Your task to perform on an android device: turn on translation in the chrome app Image 0: 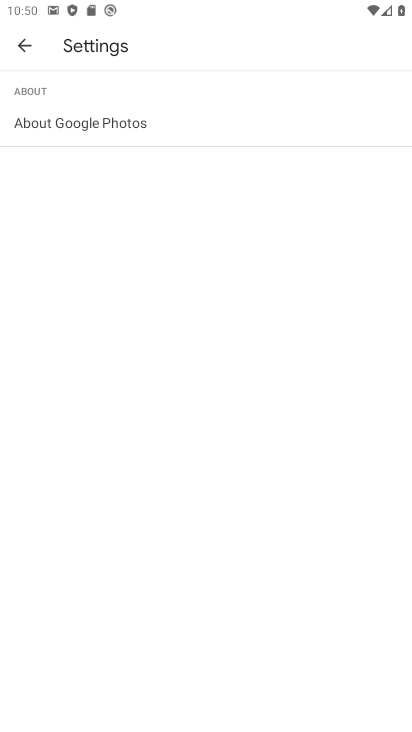
Step 0: press home button
Your task to perform on an android device: turn on translation in the chrome app Image 1: 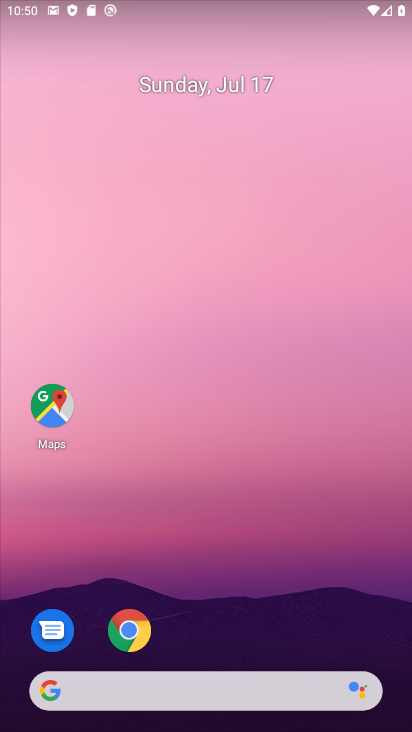
Step 1: click (142, 649)
Your task to perform on an android device: turn on translation in the chrome app Image 2: 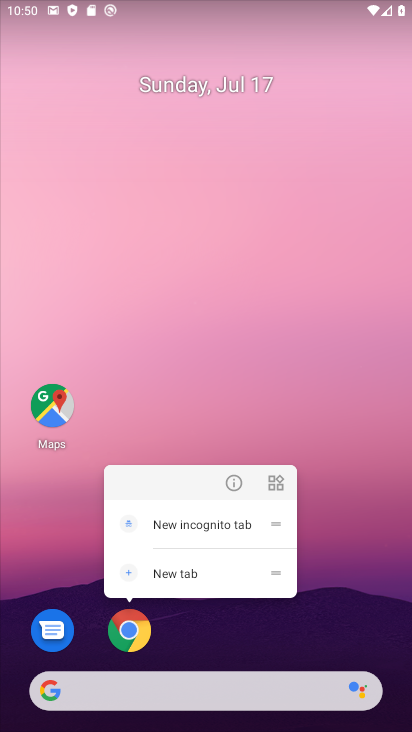
Step 2: click (141, 646)
Your task to perform on an android device: turn on translation in the chrome app Image 3: 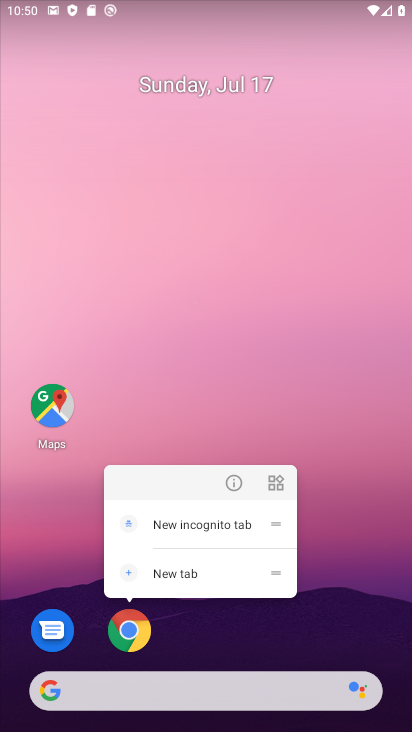
Step 3: click (135, 636)
Your task to perform on an android device: turn on translation in the chrome app Image 4: 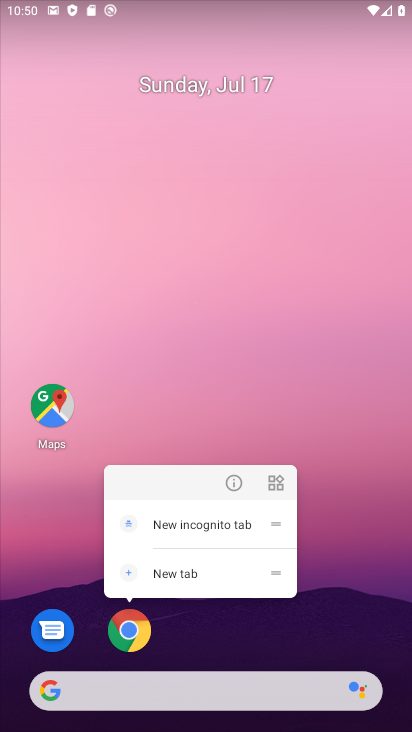
Step 4: click (135, 632)
Your task to perform on an android device: turn on translation in the chrome app Image 5: 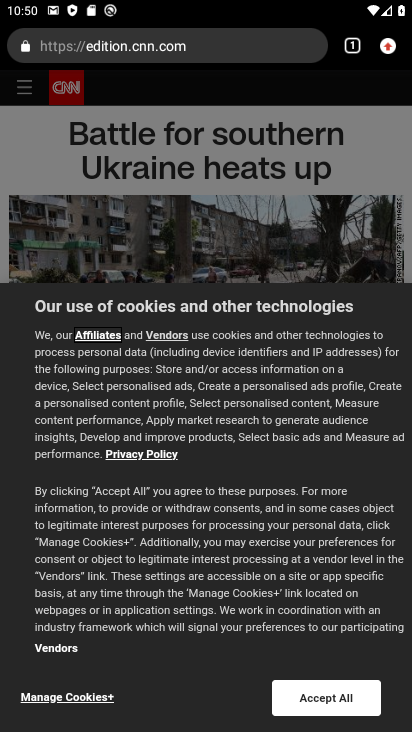
Step 5: drag from (391, 39) to (239, 561)
Your task to perform on an android device: turn on translation in the chrome app Image 6: 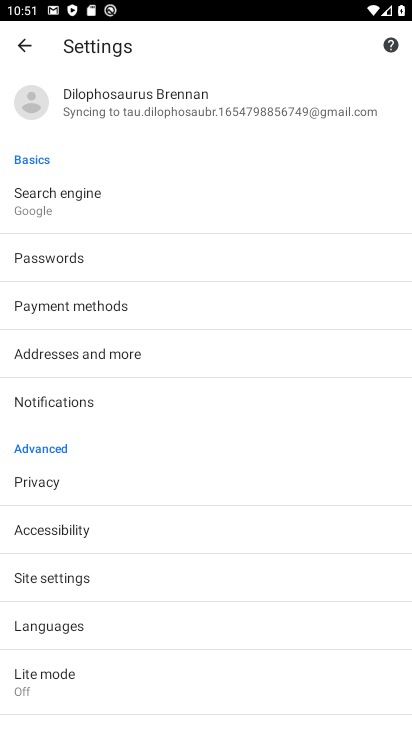
Step 6: drag from (170, 638) to (263, 345)
Your task to perform on an android device: turn on translation in the chrome app Image 7: 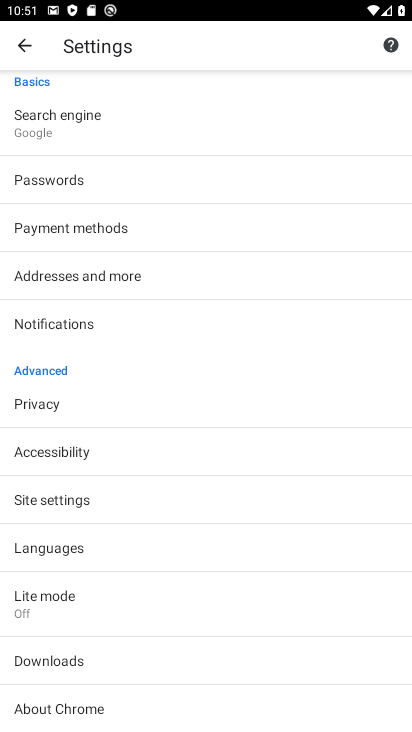
Step 7: click (116, 550)
Your task to perform on an android device: turn on translation in the chrome app Image 8: 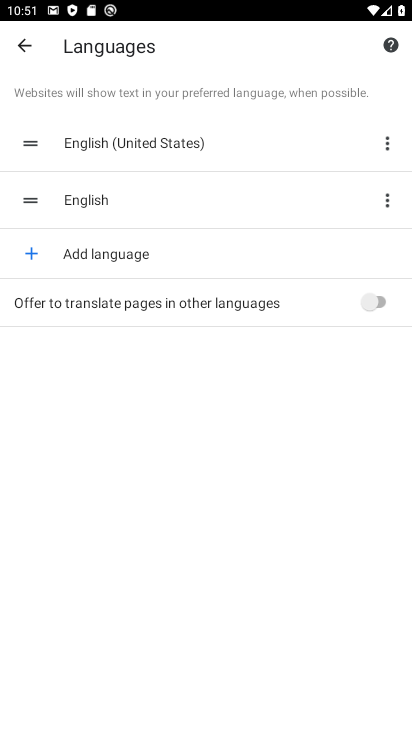
Step 8: click (382, 293)
Your task to perform on an android device: turn on translation in the chrome app Image 9: 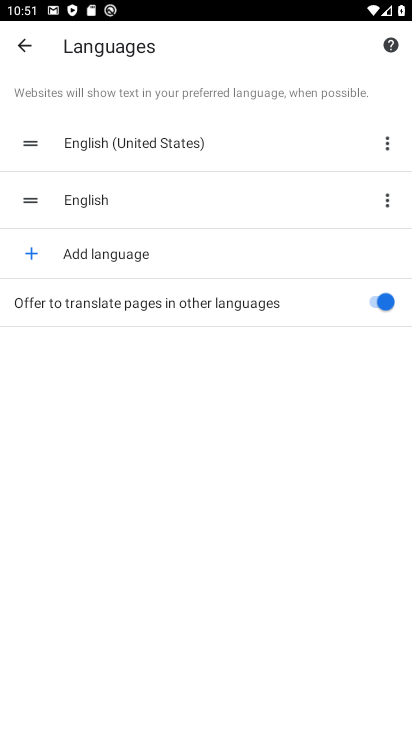
Step 9: task complete